Your task to perform on an android device: Go to display settings Image 0: 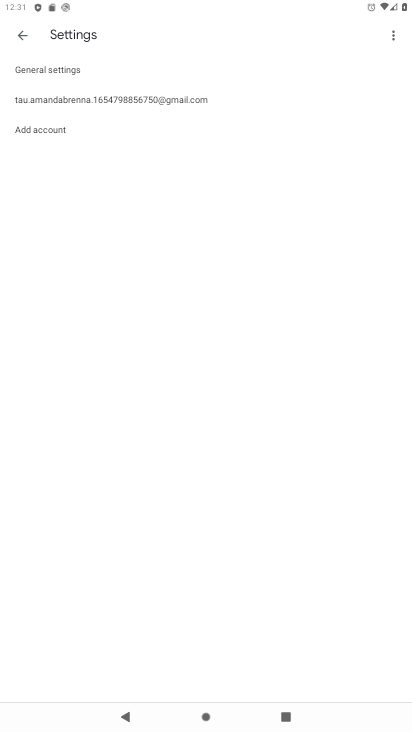
Step 0: press home button
Your task to perform on an android device: Go to display settings Image 1: 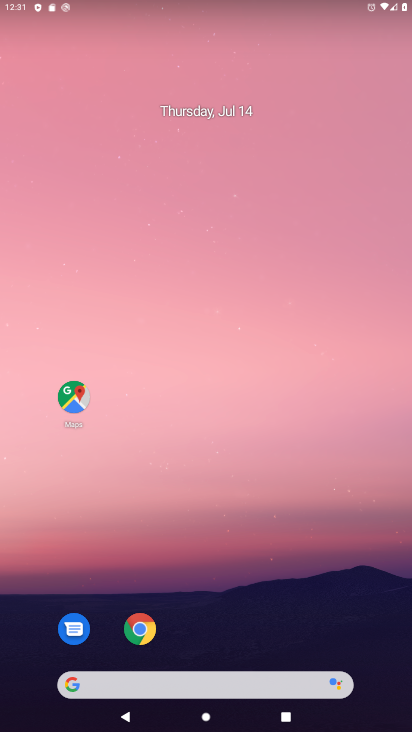
Step 1: drag from (171, 648) to (225, 0)
Your task to perform on an android device: Go to display settings Image 2: 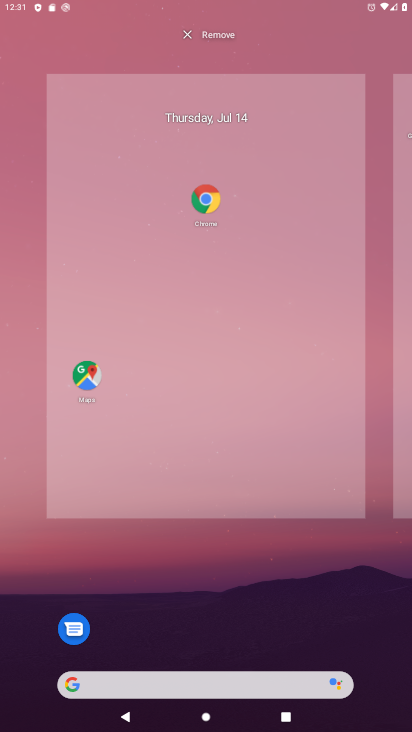
Step 2: click (220, 541)
Your task to perform on an android device: Go to display settings Image 3: 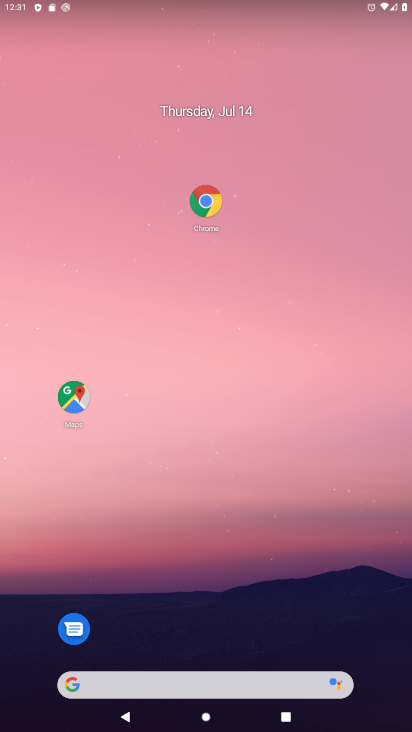
Step 3: drag from (260, 656) to (238, 275)
Your task to perform on an android device: Go to display settings Image 4: 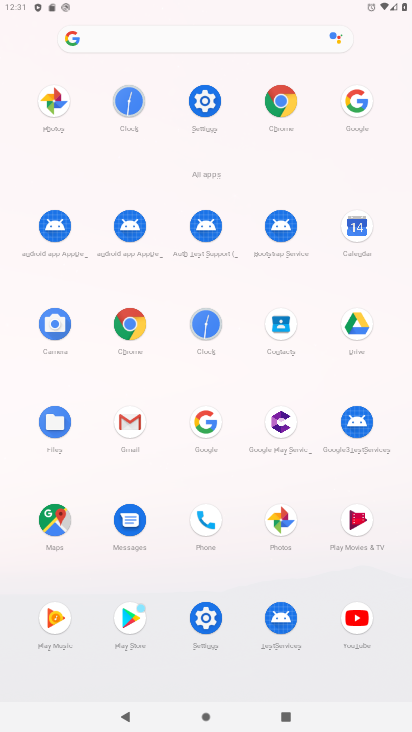
Step 4: click (218, 101)
Your task to perform on an android device: Go to display settings Image 5: 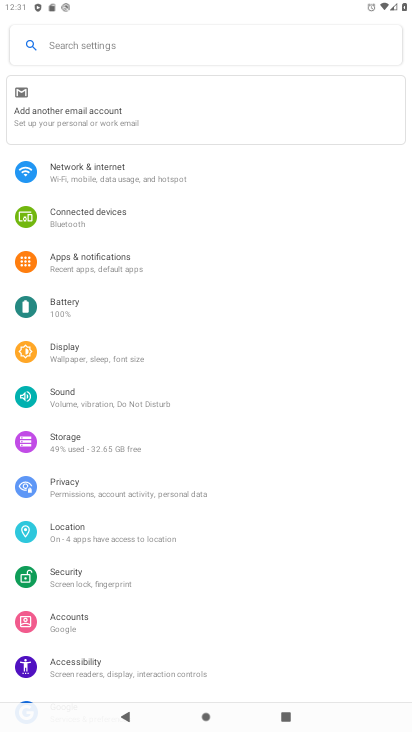
Step 5: click (29, 348)
Your task to perform on an android device: Go to display settings Image 6: 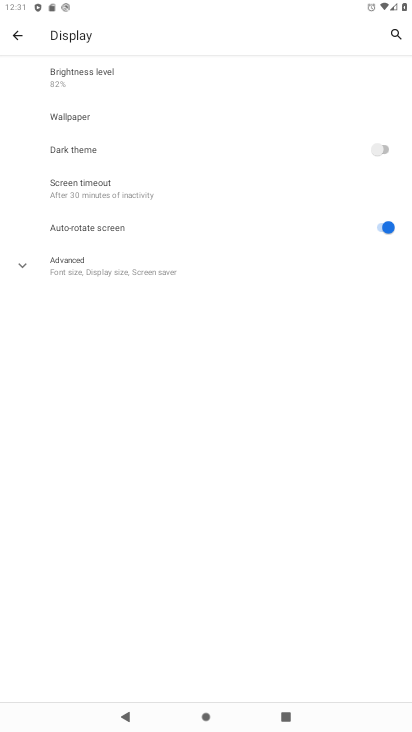
Step 6: click (79, 267)
Your task to perform on an android device: Go to display settings Image 7: 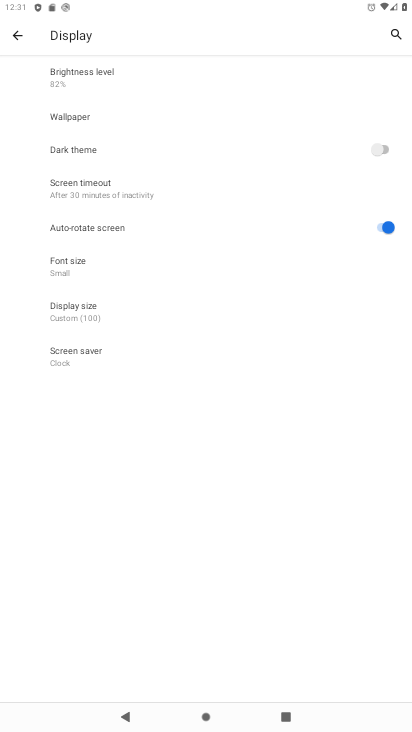
Step 7: task complete